Your task to perform on an android device: change the clock display to show seconds Image 0: 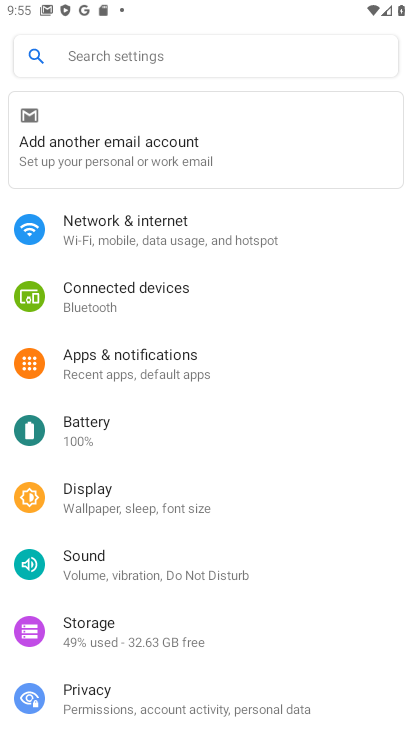
Step 0: press home button
Your task to perform on an android device: change the clock display to show seconds Image 1: 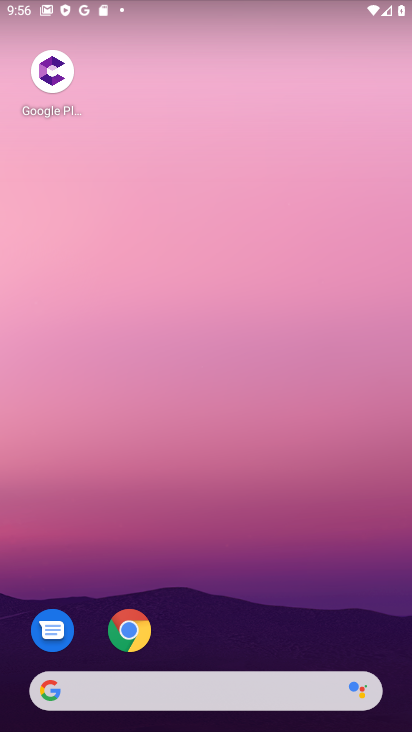
Step 1: drag from (187, 661) to (258, 9)
Your task to perform on an android device: change the clock display to show seconds Image 2: 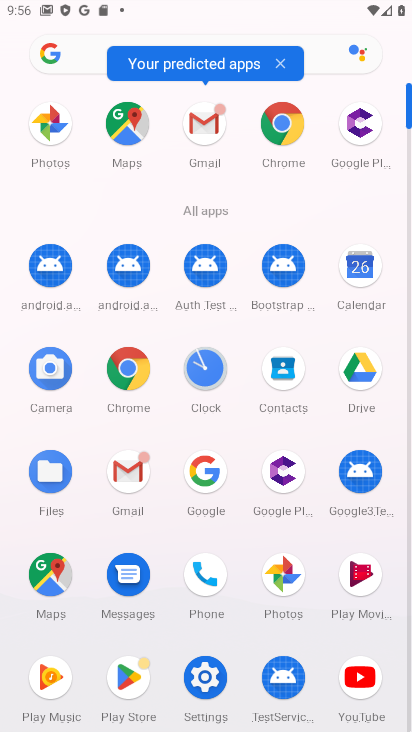
Step 2: click (207, 372)
Your task to perform on an android device: change the clock display to show seconds Image 3: 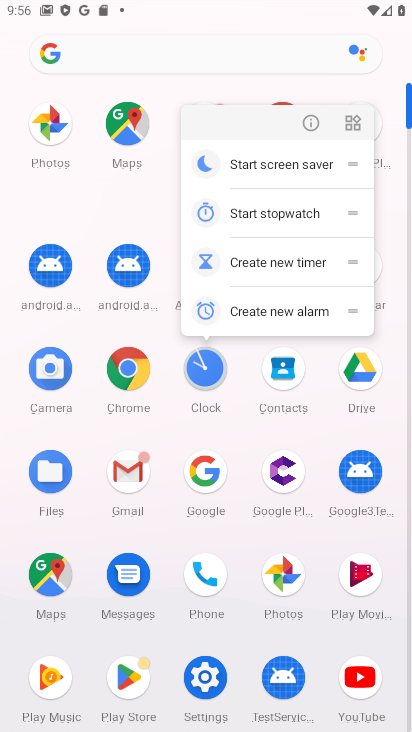
Step 3: click (211, 371)
Your task to perform on an android device: change the clock display to show seconds Image 4: 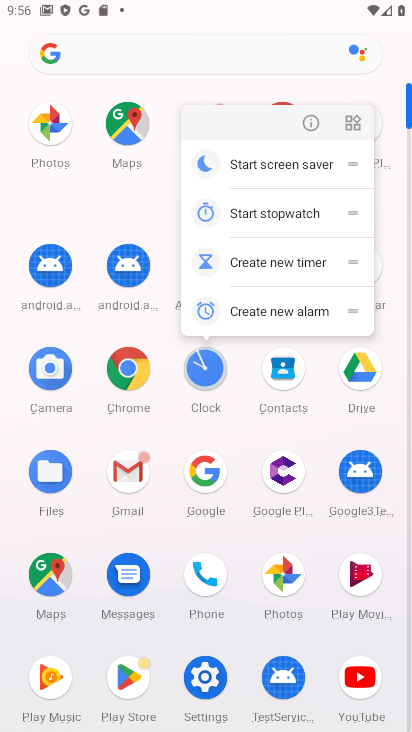
Step 4: click (211, 371)
Your task to perform on an android device: change the clock display to show seconds Image 5: 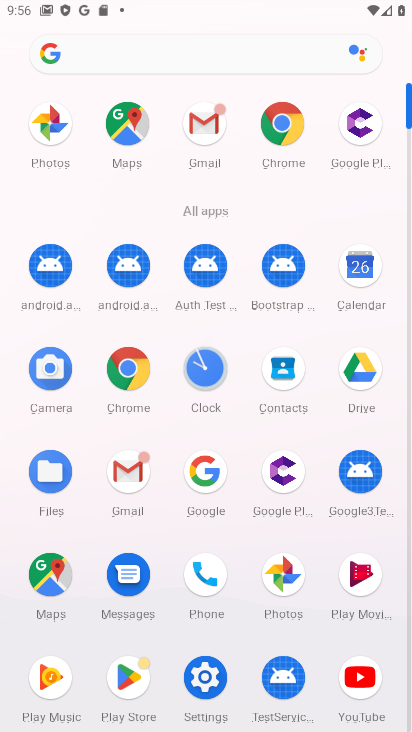
Step 5: click (211, 371)
Your task to perform on an android device: change the clock display to show seconds Image 6: 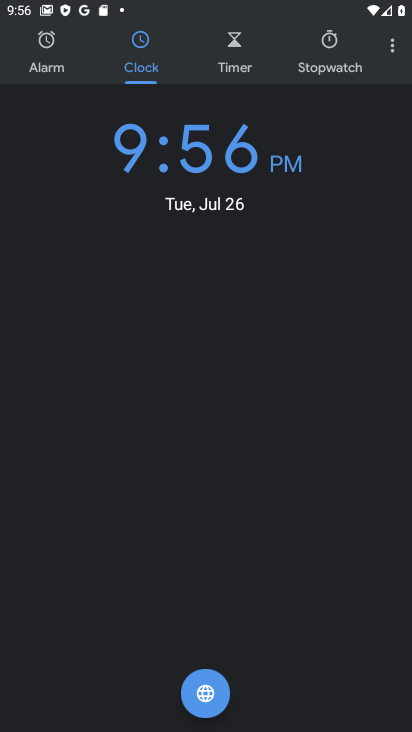
Step 6: click (390, 44)
Your task to perform on an android device: change the clock display to show seconds Image 7: 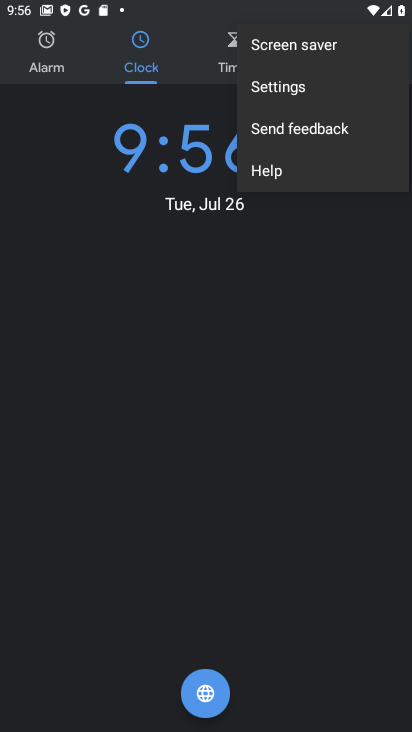
Step 7: click (314, 85)
Your task to perform on an android device: change the clock display to show seconds Image 8: 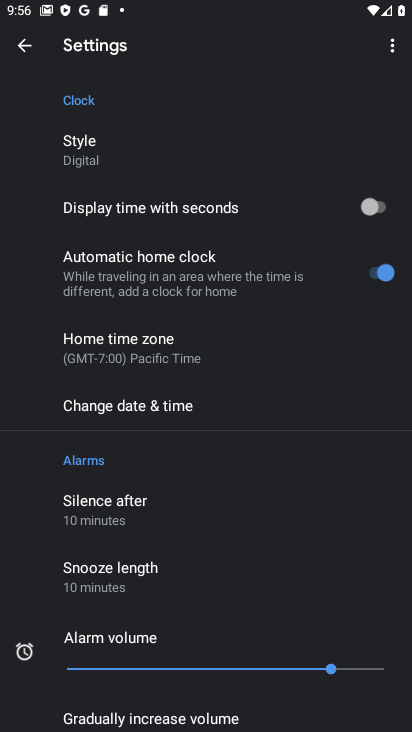
Step 8: click (373, 203)
Your task to perform on an android device: change the clock display to show seconds Image 9: 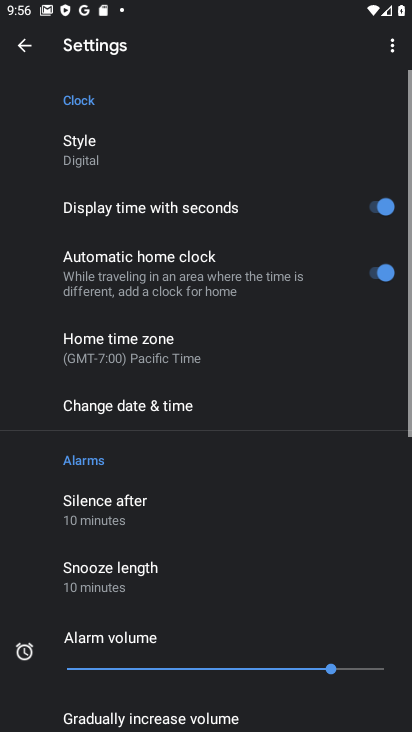
Step 9: task complete